Your task to perform on an android device: Check my email inbox Image 0: 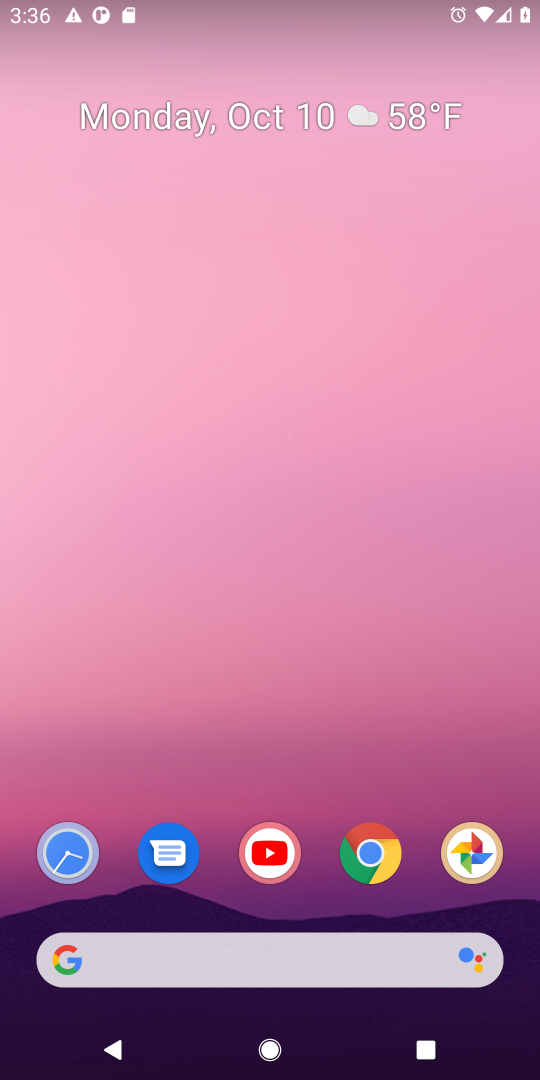
Step 0: drag from (391, 778) to (398, 57)
Your task to perform on an android device: Check my email inbox Image 1: 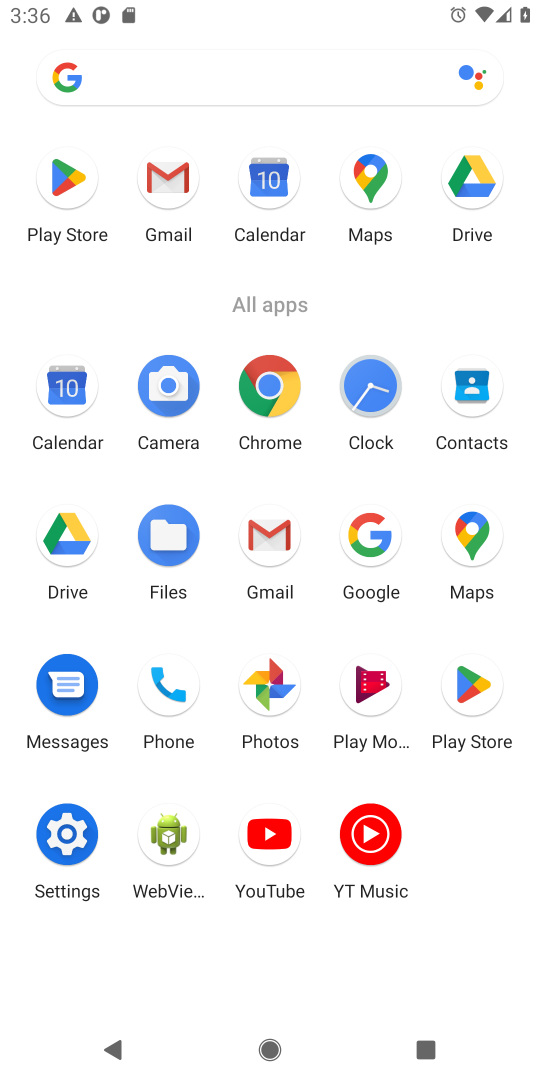
Step 1: click (263, 525)
Your task to perform on an android device: Check my email inbox Image 2: 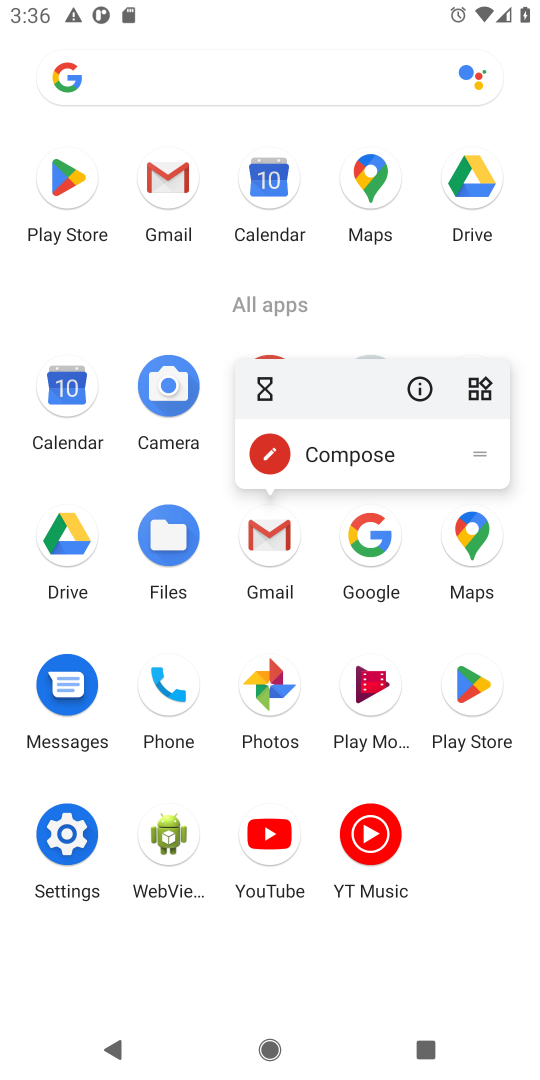
Step 2: click (271, 534)
Your task to perform on an android device: Check my email inbox Image 3: 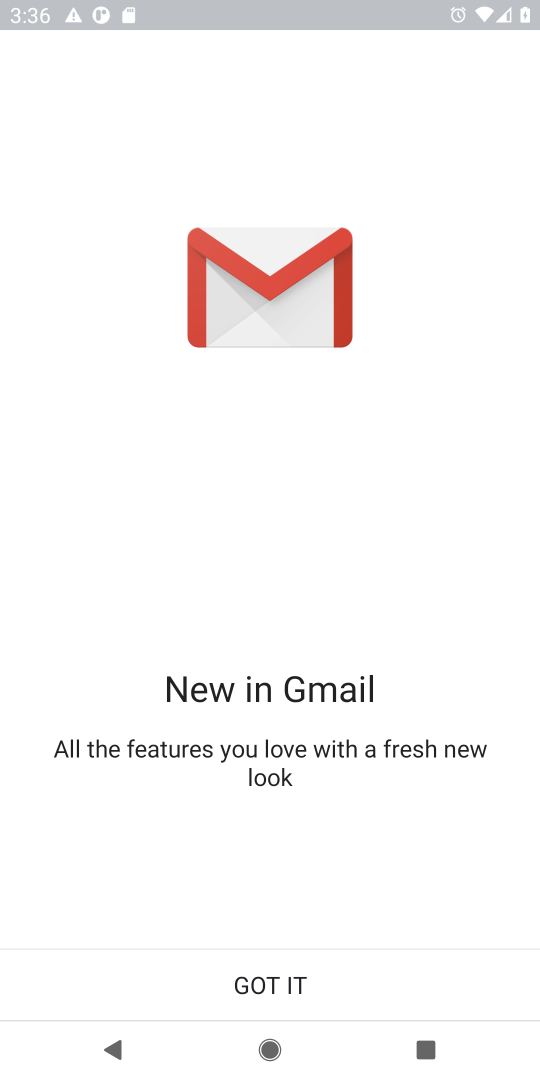
Step 3: click (275, 971)
Your task to perform on an android device: Check my email inbox Image 4: 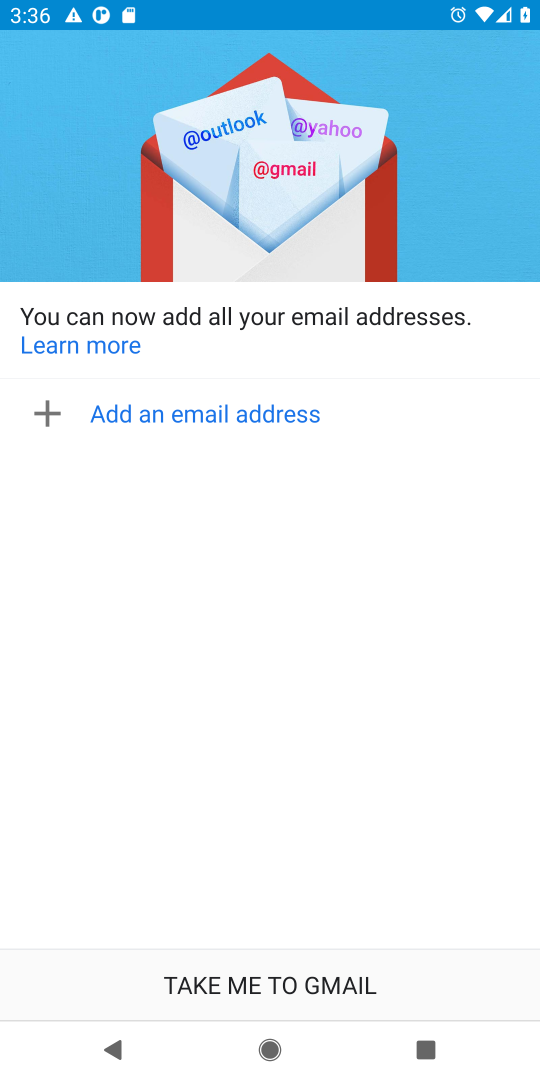
Step 4: click (263, 975)
Your task to perform on an android device: Check my email inbox Image 5: 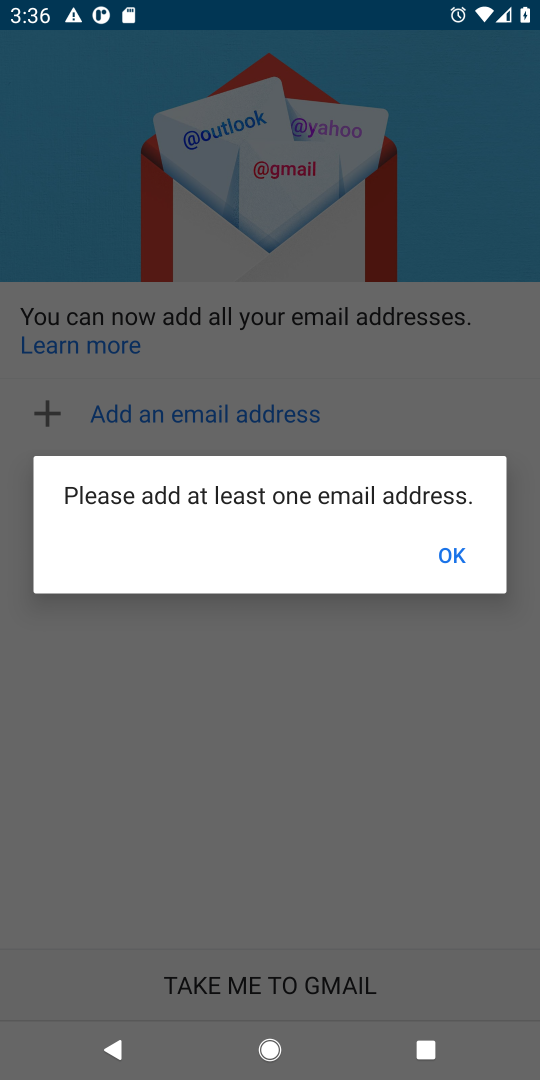
Step 5: task complete